Your task to perform on an android device: change timer sound Image 0: 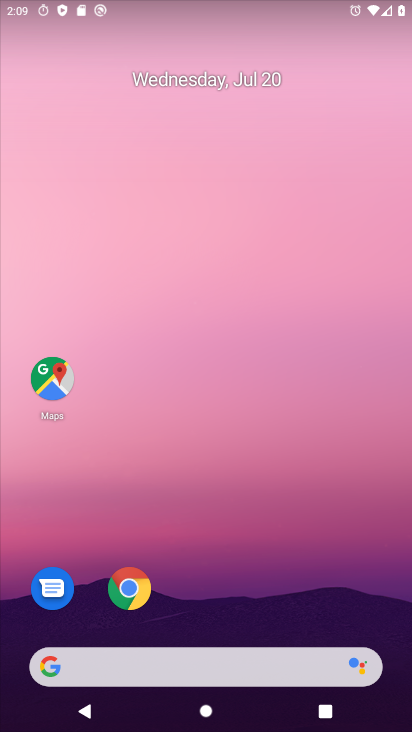
Step 0: drag from (287, 647) to (255, 5)
Your task to perform on an android device: change timer sound Image 1: 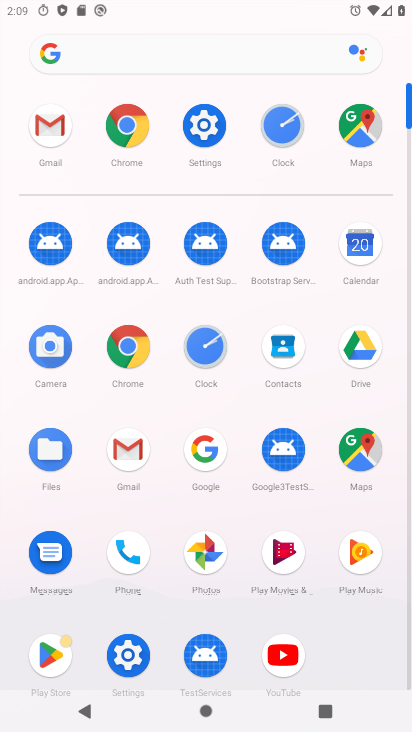
Step 1: click (212, 350)
Your task to perform on an android device: change timer sound Image 2: 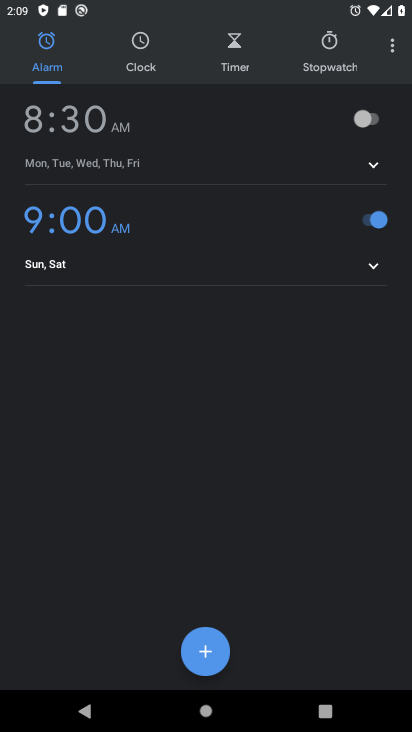
Step 2: click (231, 43)
Your task to perform on an android device: change timer sound Image 3: 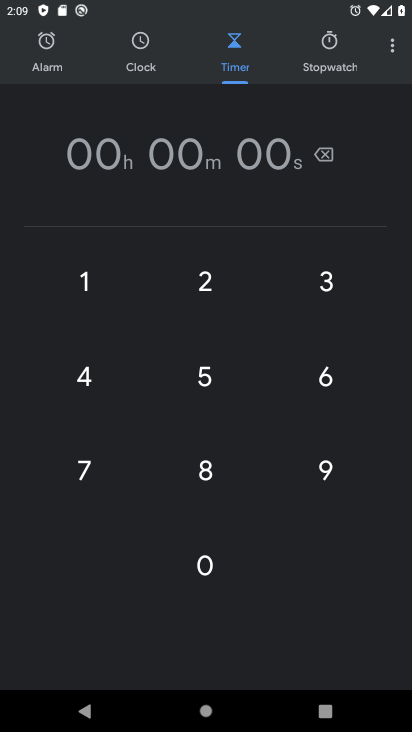
Step 3: click (335, 462)
Your task to perform on an android device: change timer sound Image 4: 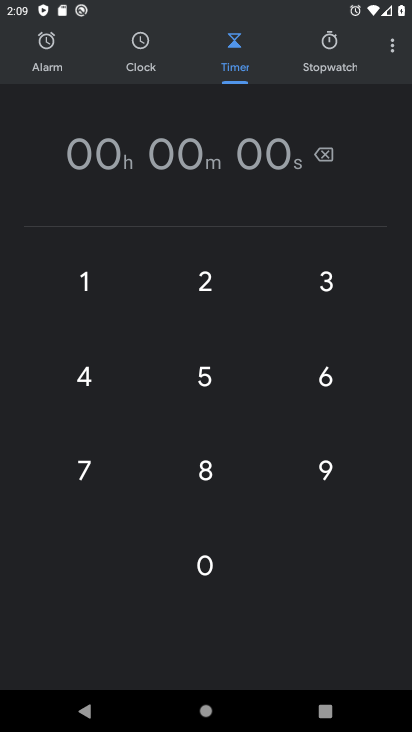
Step 4: click (335, 462)
Your task to perform on an android device: change timer sound Image 5: 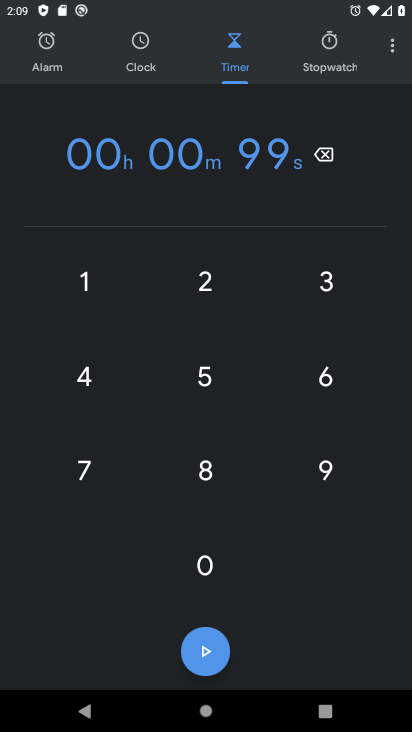
Step 5: click (335, 462)
Your task to perform on an android device: change timer sound Image 6: 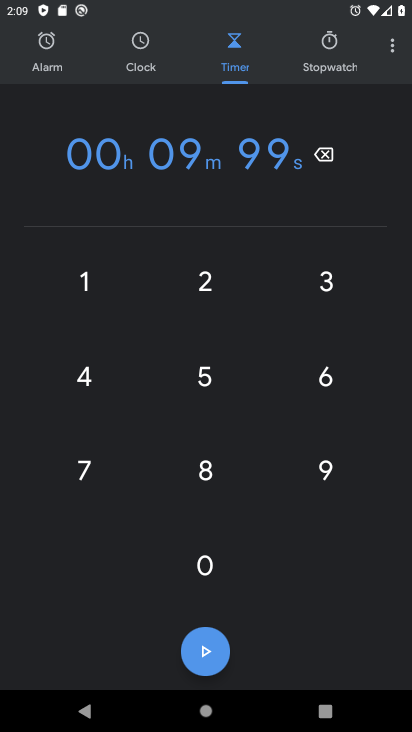
Step 6: click (323, 465)
Your task to perform on an android device: change timer sound Image 7: 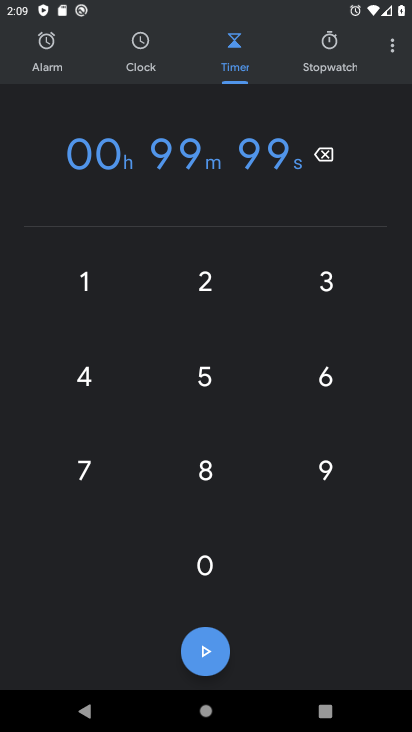
Step 7: click (323, 465)
Your task to perform on an android device: change timer sound Image 8: 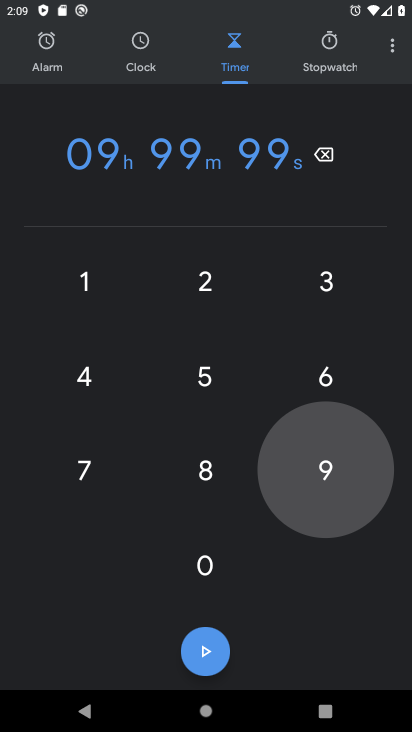
Step 8: click (323, 465)
Your task to perform on an android device: change timer sound Image 9: 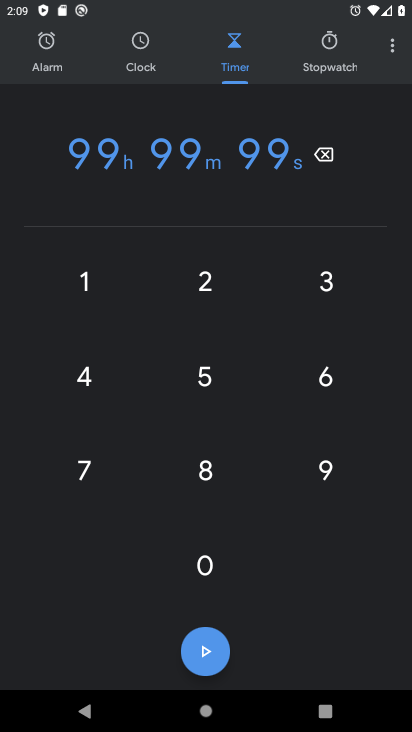
Step 9: click (206, 654)
Your task to perform on an android device: change timer sound Image 10: 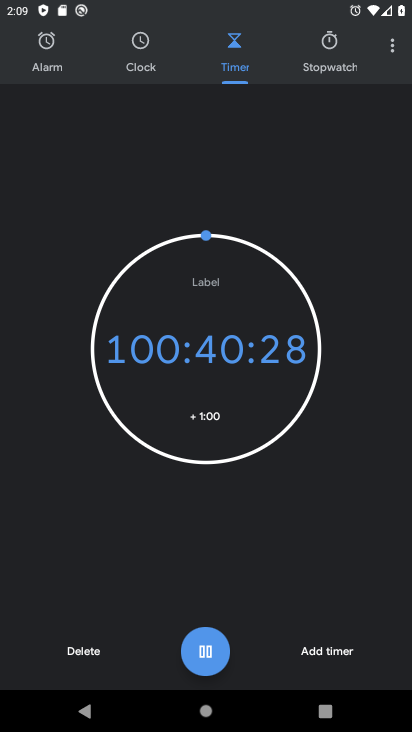
Step 10: task complete